Your task to perform on an android device: toggle notifications settings in the gmail app Image 0: 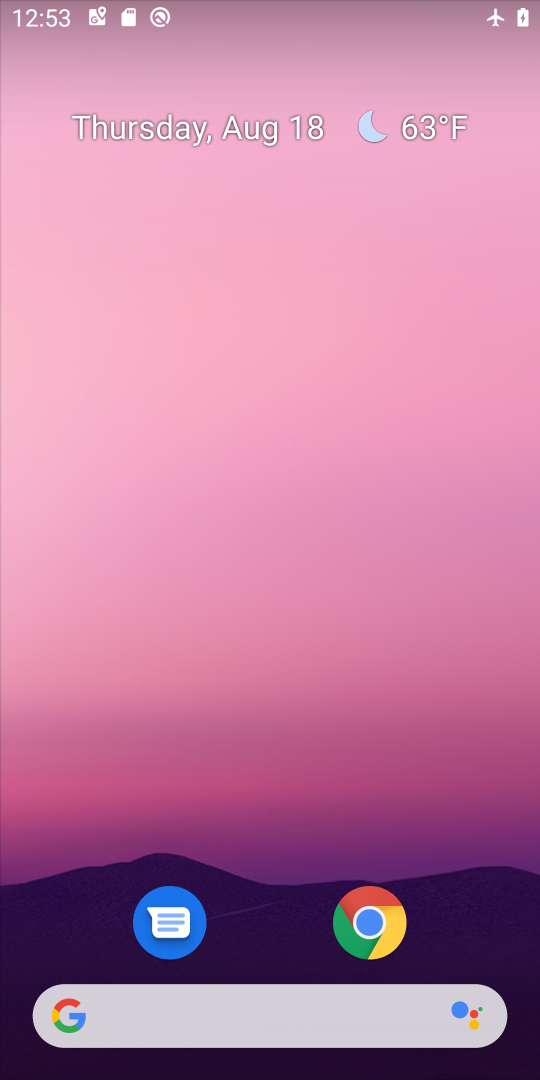
Step 0: drag from (281, 942) to (233, 172)
Your task to perform on an android device: toggle notifications settings in the gmail app Image 1: 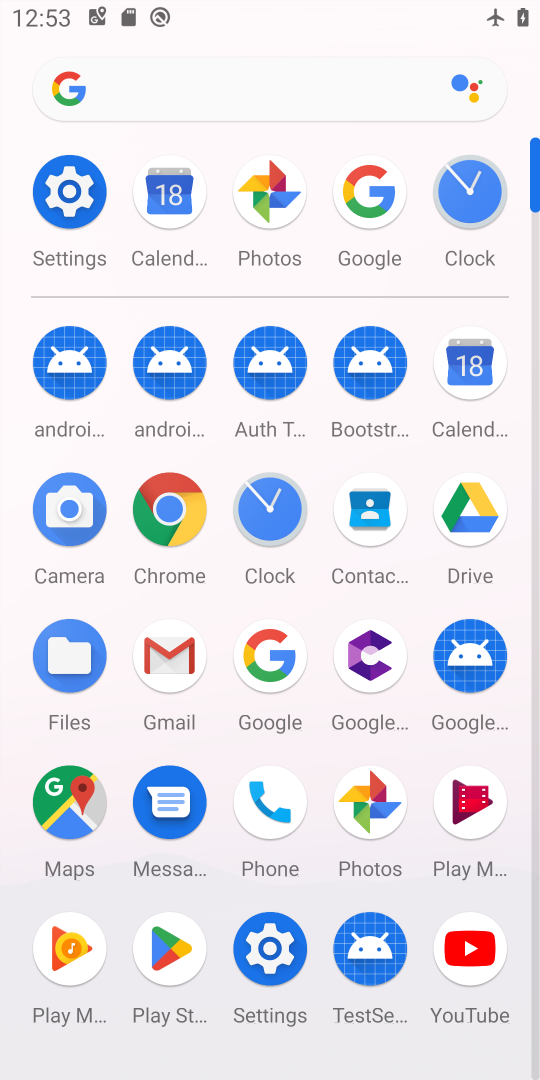
Step 1: click (168, 652)
Your task to perform on an android device: toggle notifications settings in the gmail app Image 2: 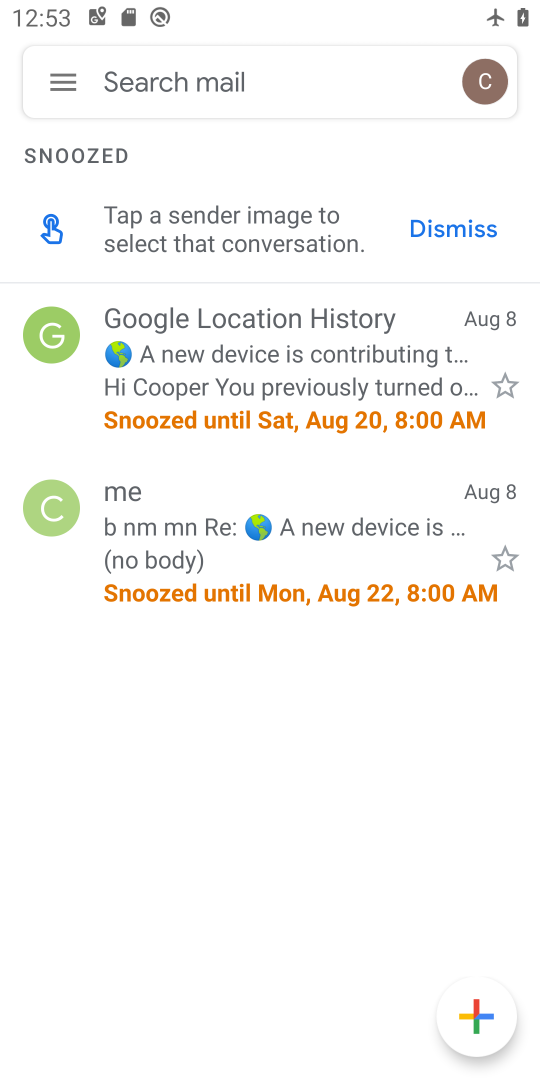
Step 2: click (58, 77)
Your task to perform on an android device: toggle notifications settings in the gmail app Image 3: 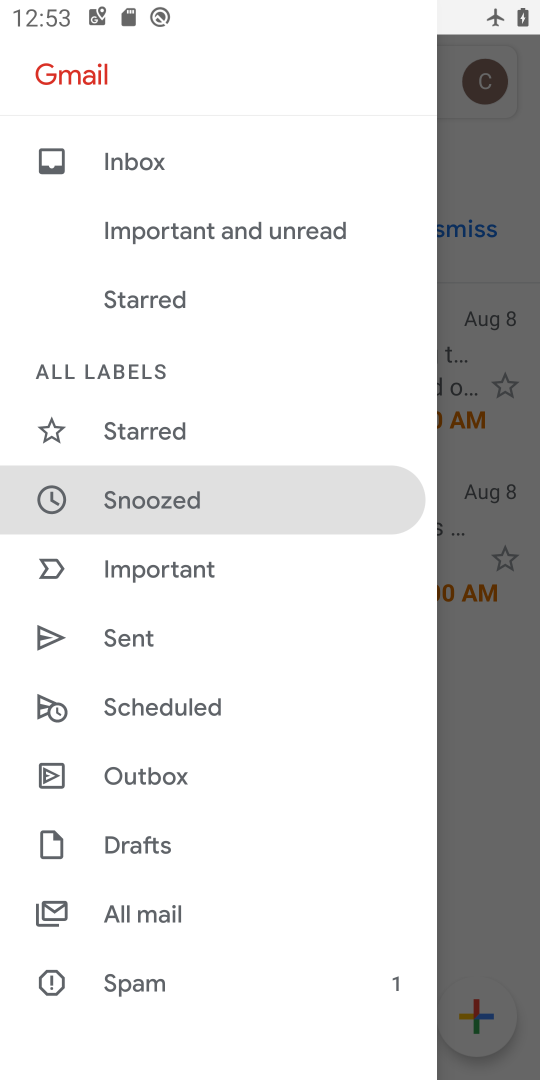
Step 3: drag from (221, 903) to (175, 464)
Your task to perform on an android device: toggle notifications settings in the gmail app Image 4: 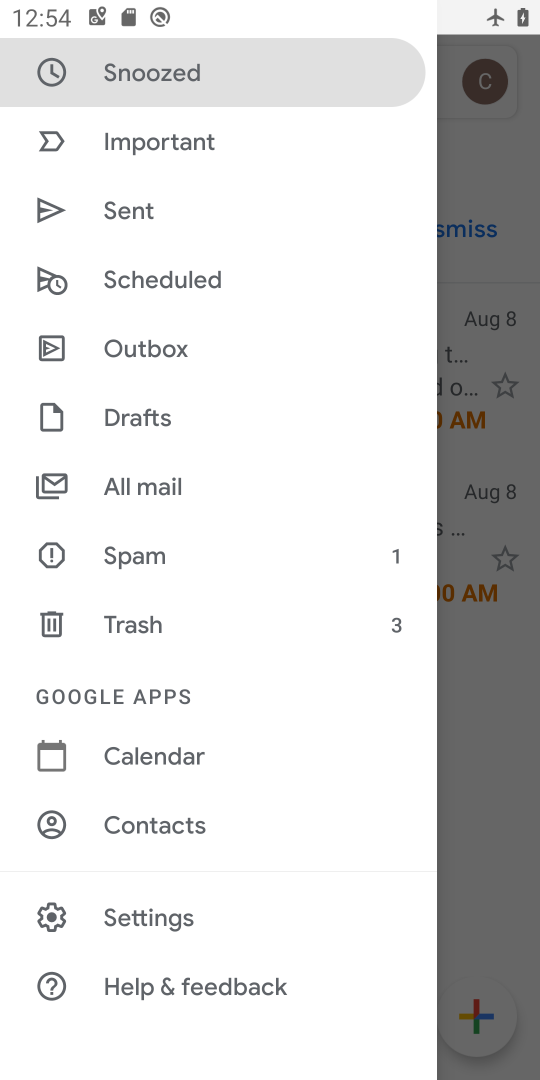
Step 4: click (148, 906)
Your task to perform on an android device: toggle notifications settings in the gmail app Image 5: 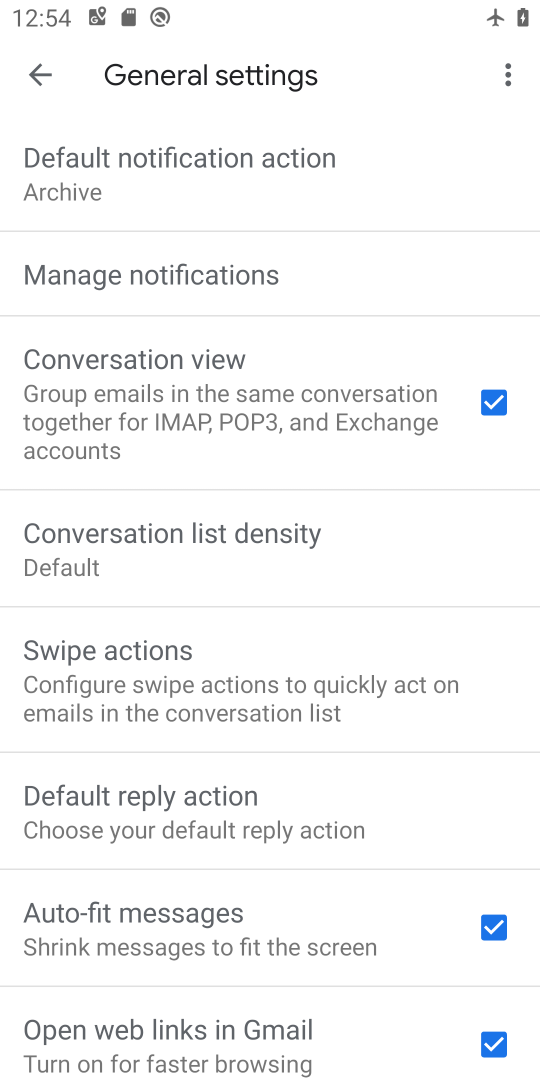
Step 5: click (139, 263)
Your task to perform on an android device: toggle notifications settings in the gmail app Image 6: 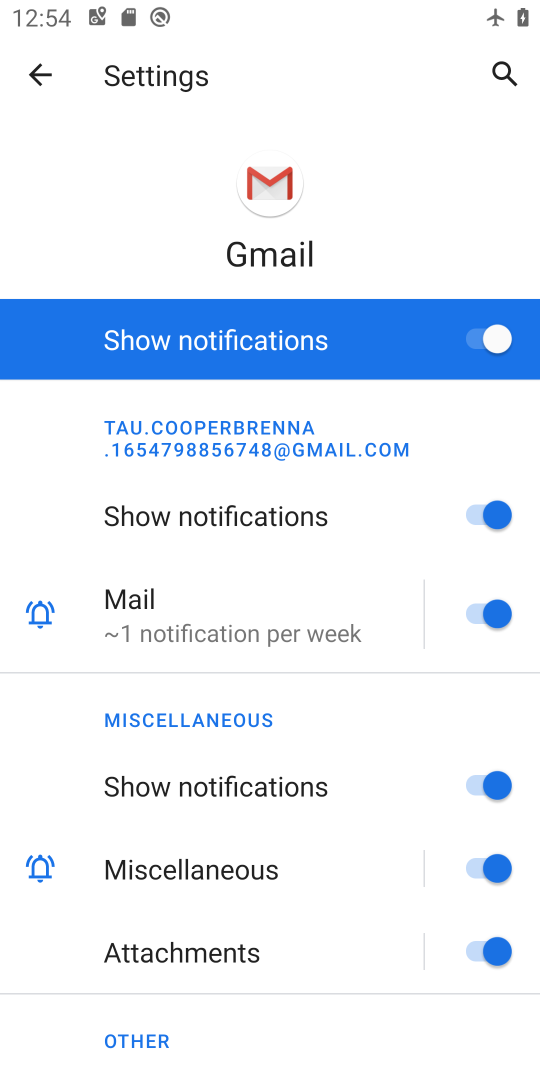
Step 6: click (488, 330)
Your task to perform on an android device: toggle notifications settings in the gmail app Image 7: 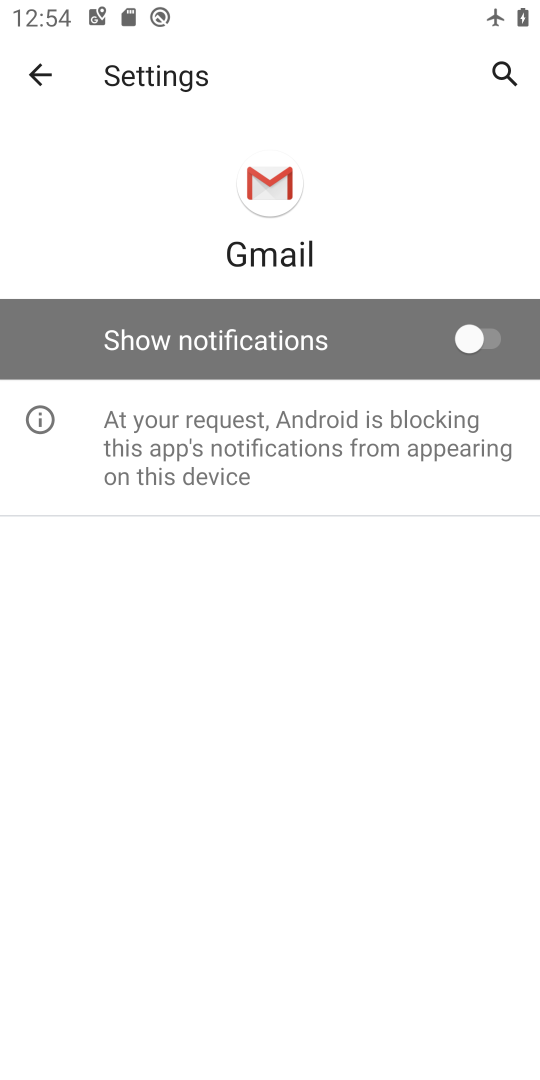
Step 7: task complete